Your task to perform on an android device: What's on my calendar tomorrow? Image 0: 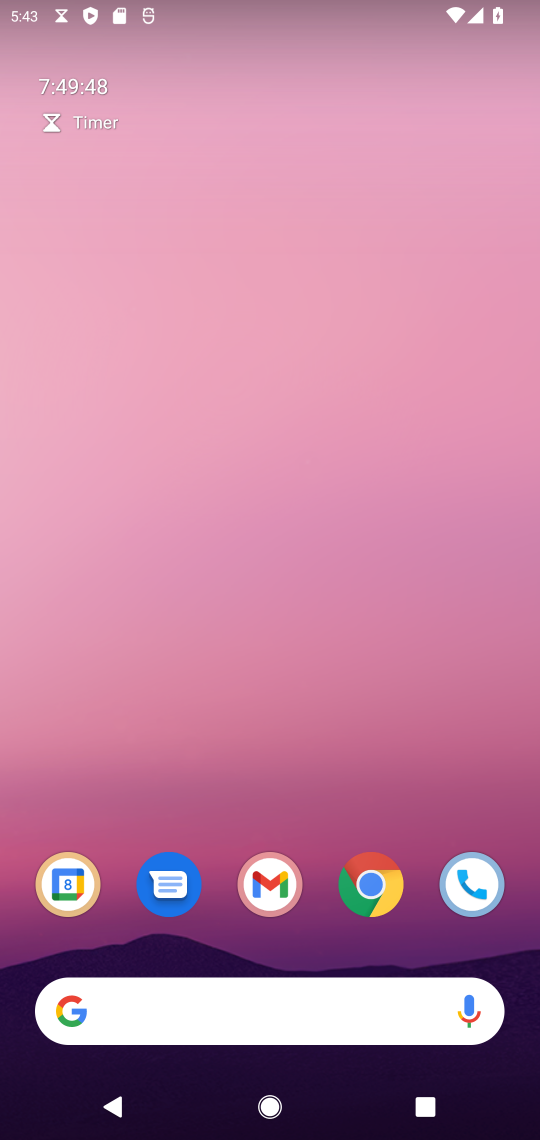
Step 0: drag from (323, 953) to (257, 238)
Your task to perform on an android device: What's on my calendar tomorrow? Image 1: 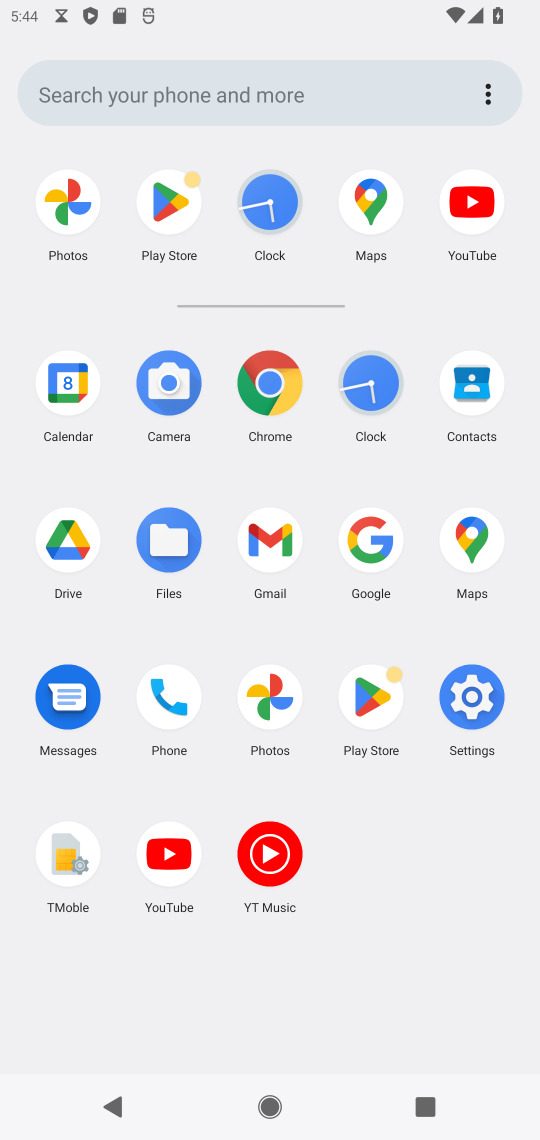
Step 1: click (58, 391)
Your task to perform on an android device: What's on my calendar tomorrow? Image 2: 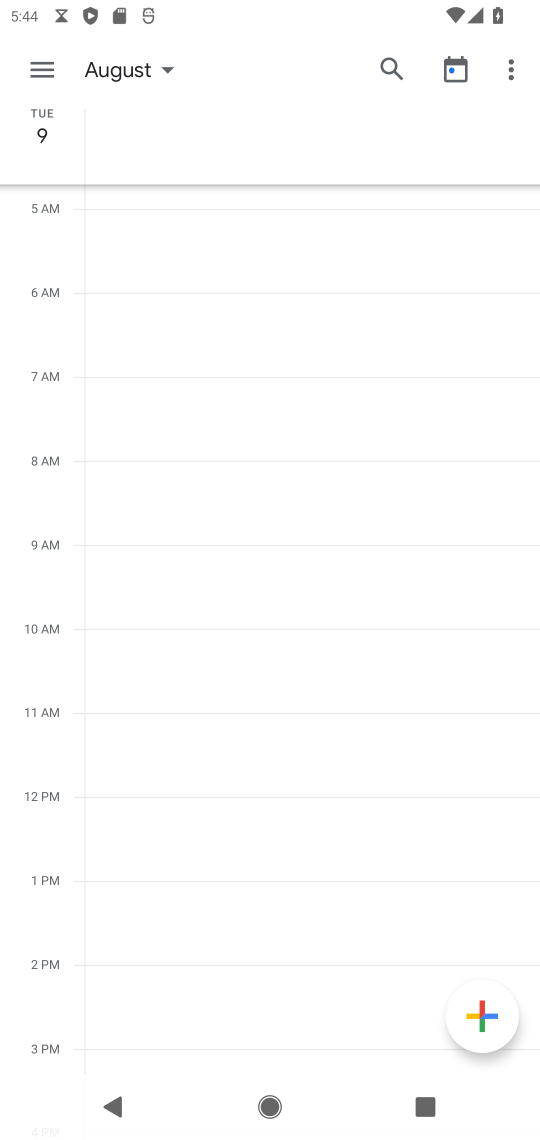
Step 2: task complete